Your task to perform on an android device: toggle translation in the chrome app Image 0: 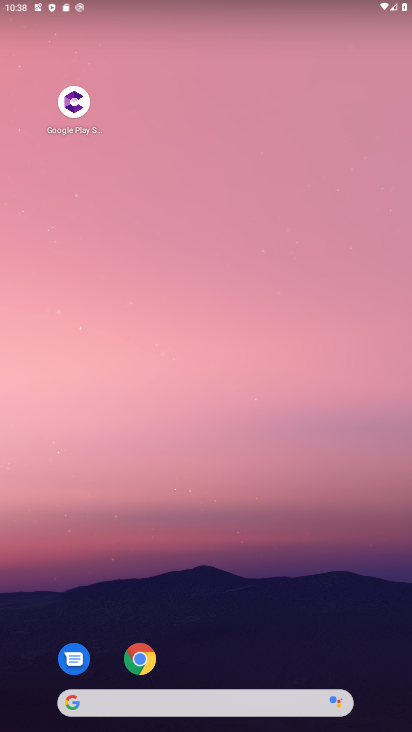
Step 0: click (141, 660)
Your task to perform on an android device: toggle translation in the chrome app Image 1: 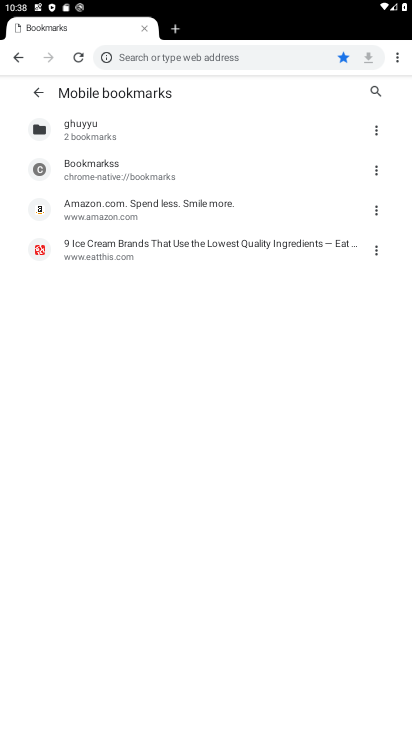
Step 1: click (398, 54)
Your task to perform on an android device: toggle translation in the chrome app Image 2: 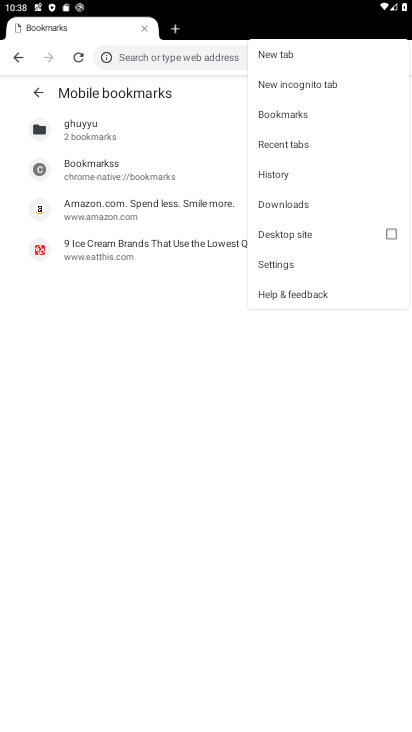
Step 2: click (280, 263)
Your task to perform on an android device: toggle translation in the chrome app Image 3: 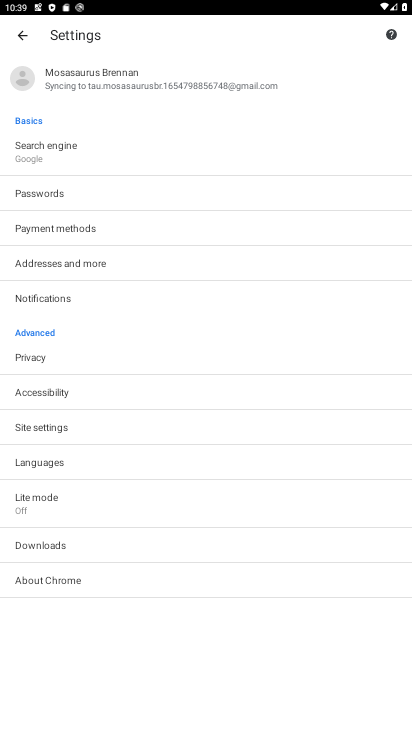
Step 3: click (44, 463)
Your task to perform on an android device: toggle translation in the chrome app Image 4: 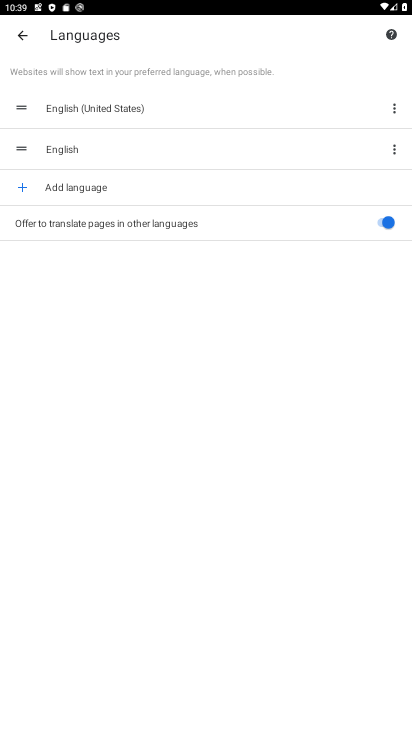
Step 4: click (383, 223)
Your task to perform on an android device: toggle translation in the chrome app Image 5: 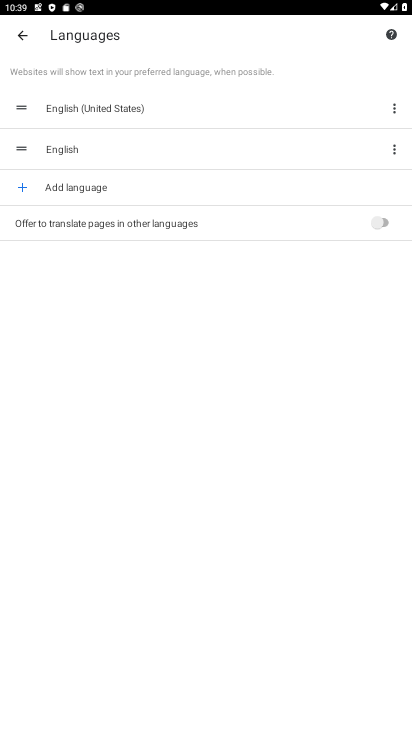
Step 5: task complete